Your task to perform on an android device: Open Yahoo.com Image 0: 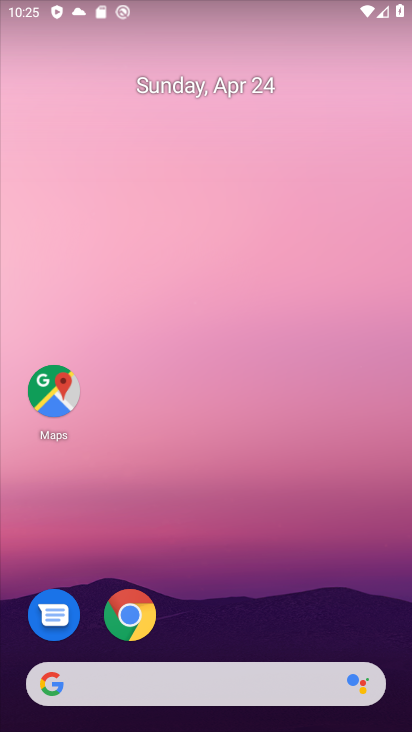
Step 0: drag from (227, 646) to (247, 13)
Your task to perform on an android device: Open Yahoo.com Image 1: 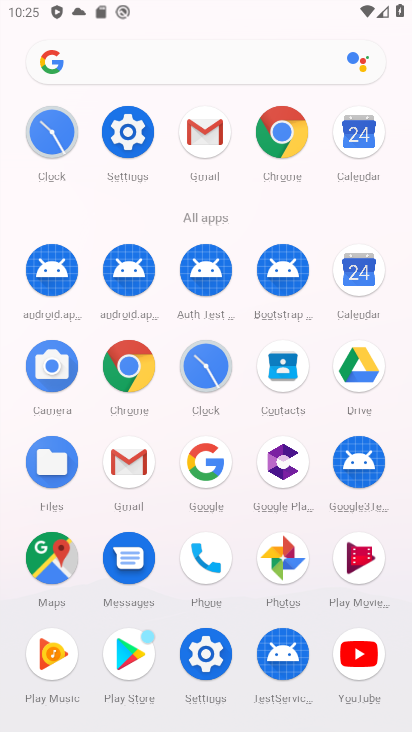
Step 1: click (128, 357)
Your task to perform on an android device: Open Yahoo.com Image 2: 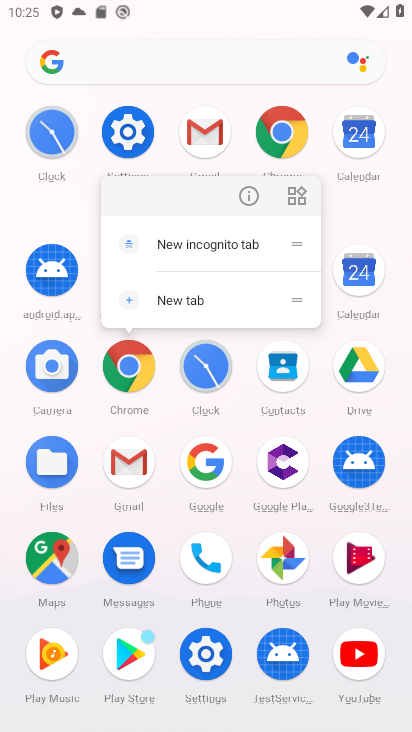
Step 2: click (125, 359)
Your task to perform on an android device: Open Yahoo.com Image 3: 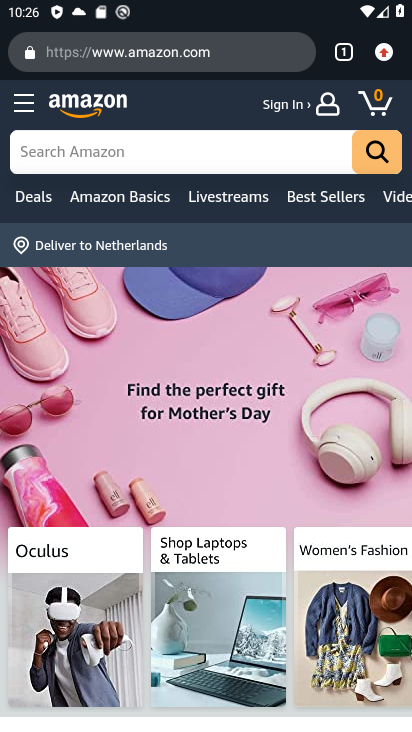
Step 3: click (342, 52)
Your task to perform on an android device: Open Yahoo.com Image 4: 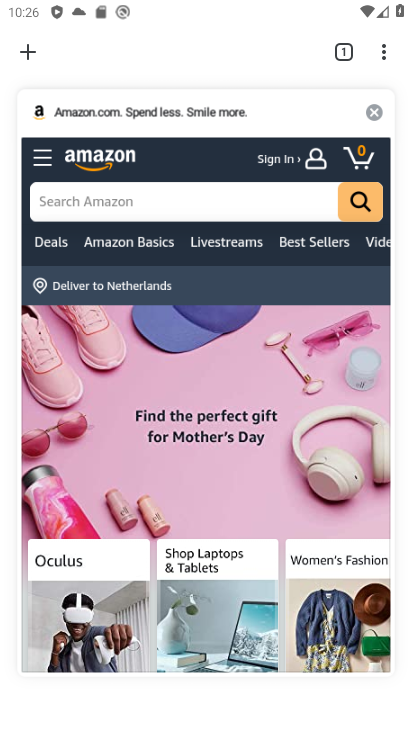
Step 4: click (372, 108)
Your task to perform on an android device: Open Yahoo.com Image 5: 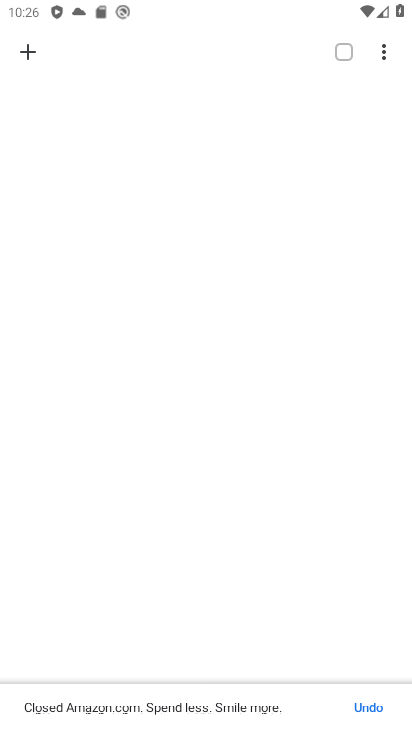
Step 5: click (31, 50)
Your task to perform on an android device: Open Yahoo.com Image 6: 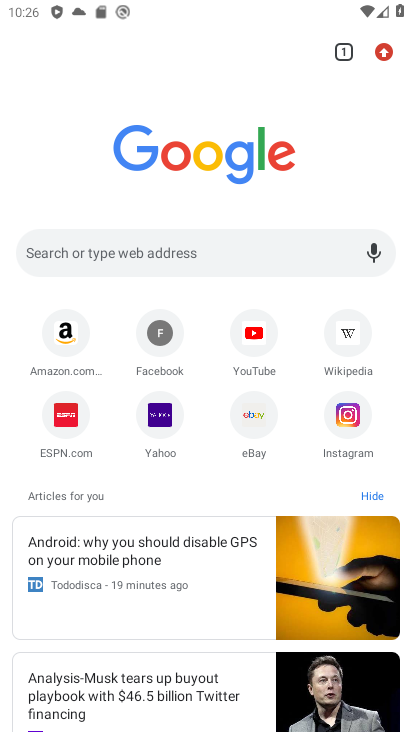
Step 6: click (160, 414)
Your task to perform on an android device: Open Yahoo.com Image 7: 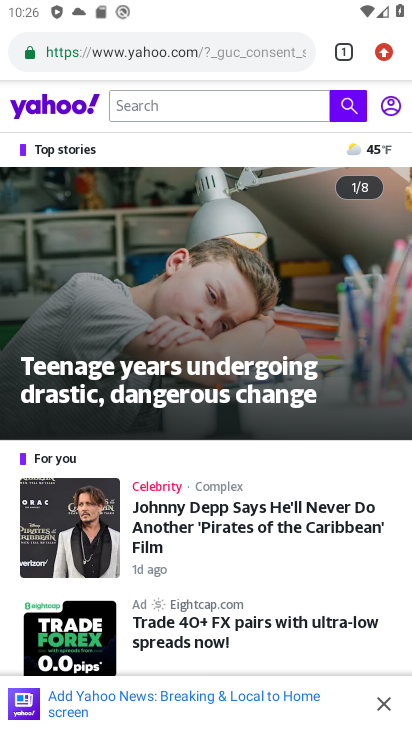
Step 7: task complete